Your task to perform on an android device: Search for the best vacuum on Walmart Image 0: 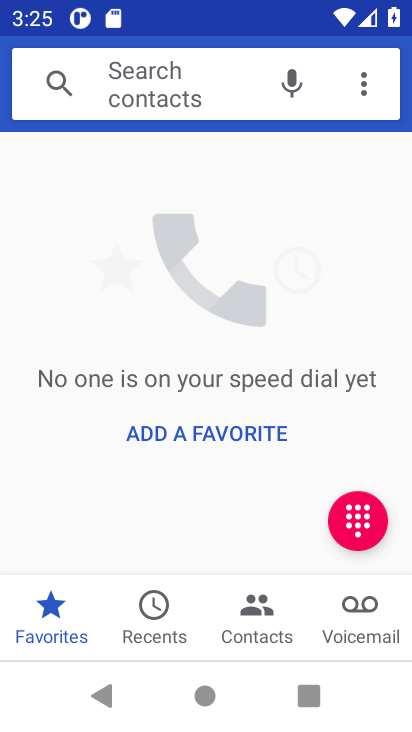
Step 0: press back button
Your task to perform on an android device: Search for the best vacuum on Walmart Image 1: 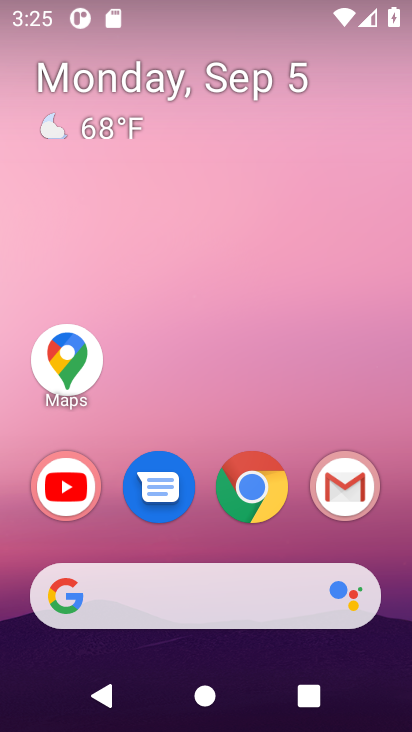
Step 1: click (253, 486)
Your task to perform on an android device: Search for the best vacuum on Walmart Image 2: 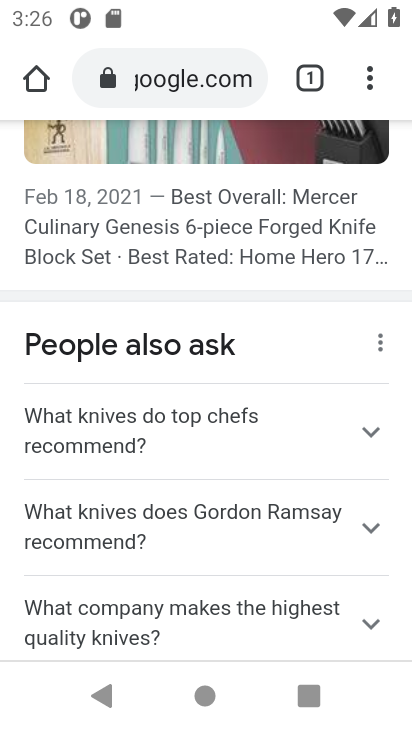
Step 2: task complete